Your task to perform on an android device: Open Maps and search for coffee Image 0: 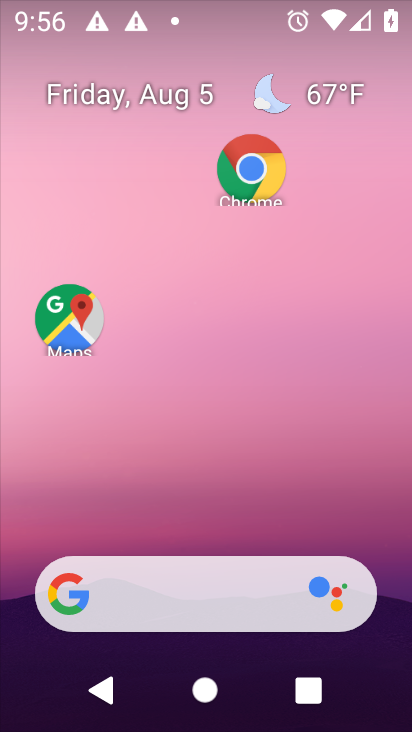
Step 0: click (82, 327)
Your task to perform on an android device: Open Maps and search for coffee Image 1: 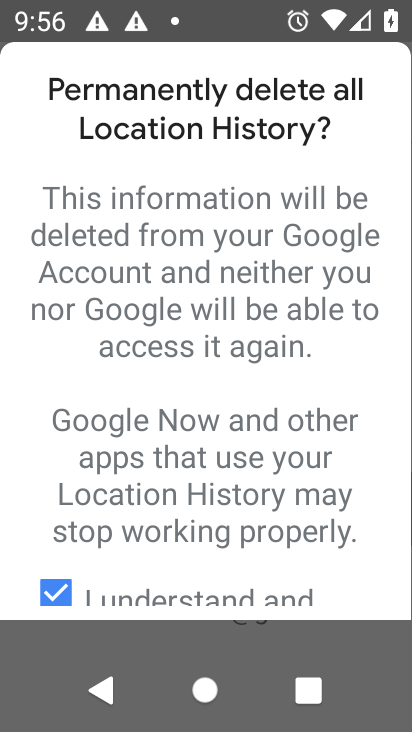
Step 1: press back button
Your task to perform on an android device: Open Maps and search for coffee Image 2: 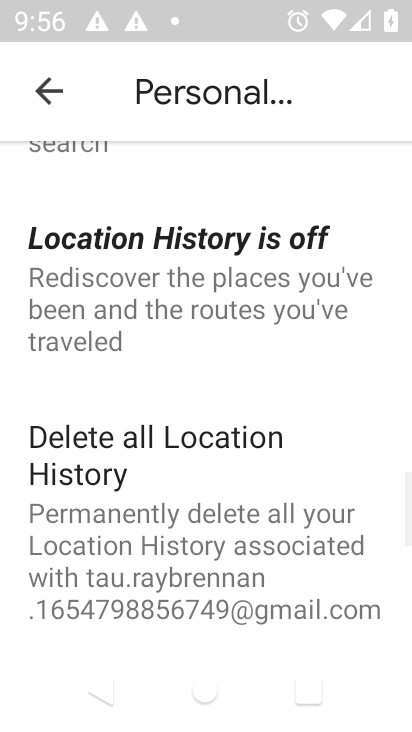
Step 2: press back button
Your task to perform on an android device: Open Maps and search for coffee Image 3: 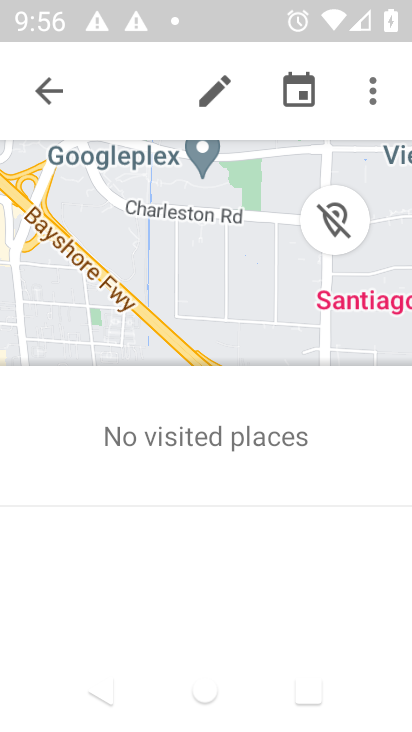
Step 3: click (33, 92)
Your task to perform on an android device: Open Maps and search for coffee Image 4: 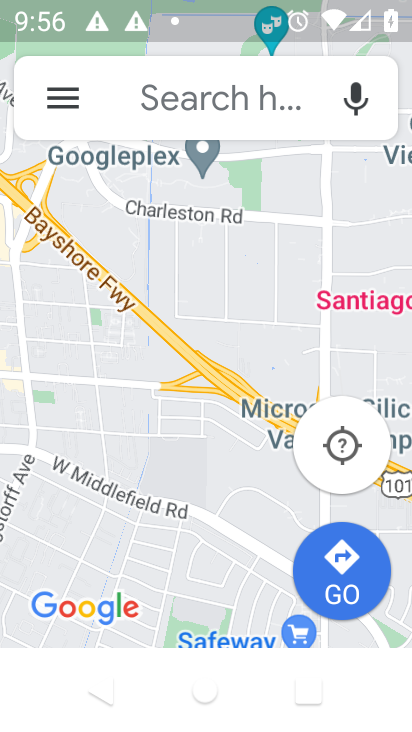
Step 4: click (195, 110)
Your task to perform on an android device: Open Maps and search for coffee Image 5: 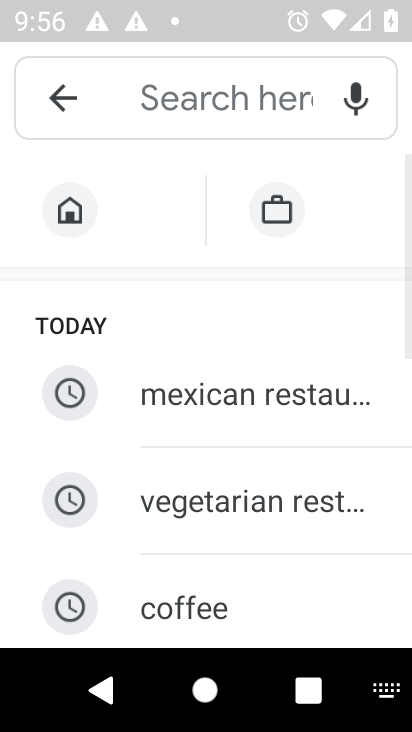
Step 5: click (210, 599)
Your task to perform on an android device: Open Maps and search for coffee Image 6: 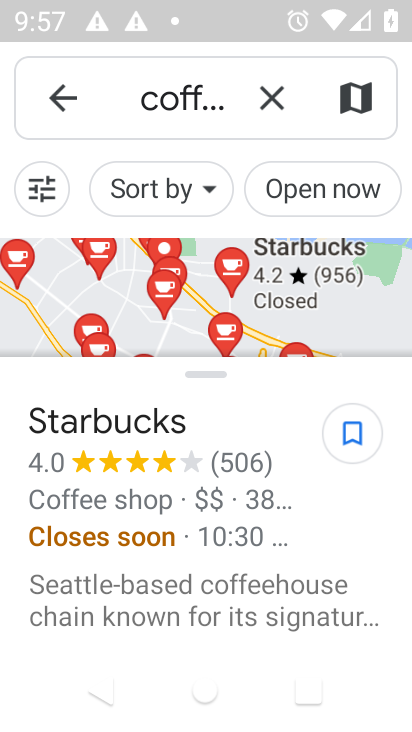
Step 6: task complete